Your task to perform on an android device: What's the weather going to be tomorrow? Image 0: 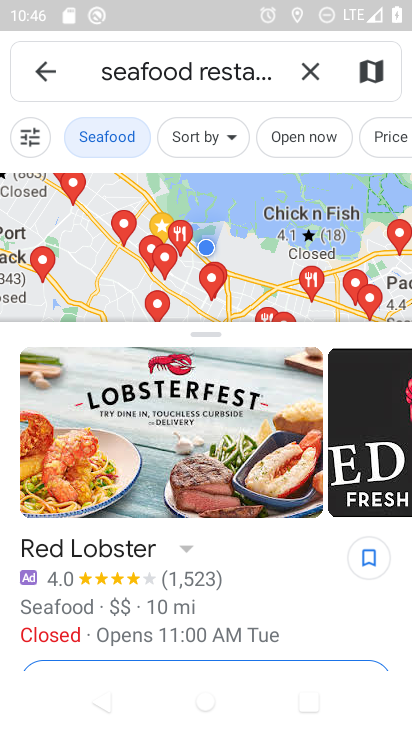
Step 0: press home button
Your task to perform on an android device: What's the weather going to be tomorrow? Image 1: 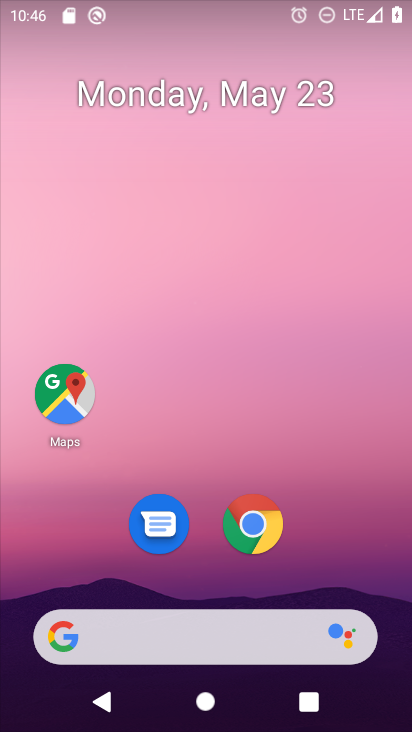
Step 1: click (158, 637)
Your task to perform on an android device: What's the weather going to be tomorrow? Image 2: 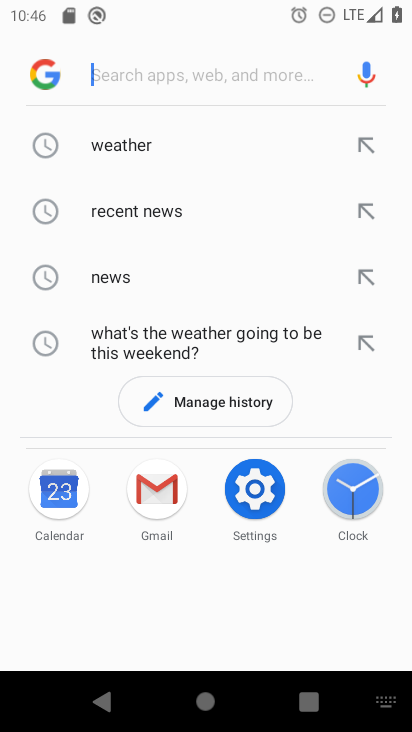
Step 2: click (109, 143)
Your task to perform on an android device: What's the weather going to be tomorrow? Image 3: 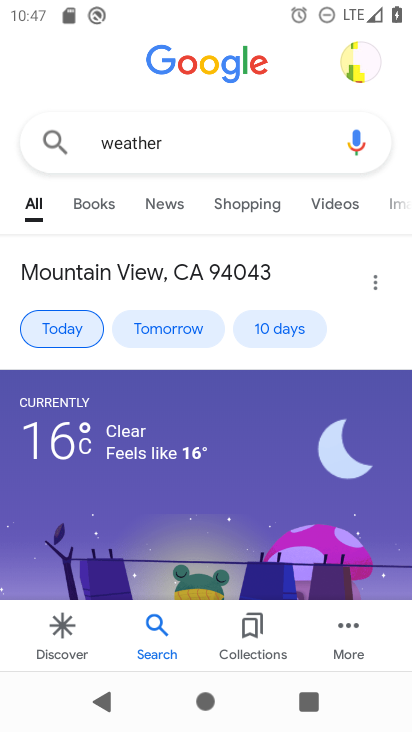
Step 3: click (74, 331)
Your task to perform on an android device: What's the weather going to be tomorrow? Image 4: 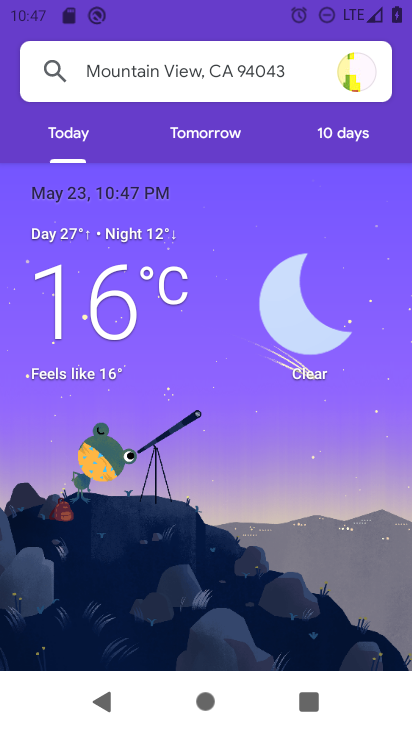
Step 4: click (205, 126)
Your task to perform on an android device: What's the weather going to be tomorrow? Image 5: 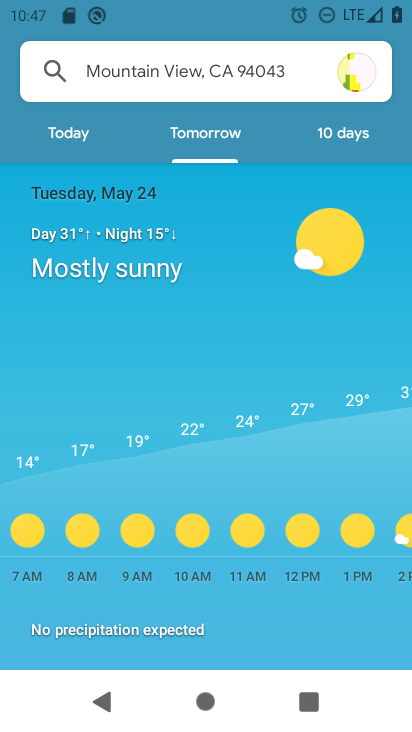
Step 5: task complete